Your task to perform on an android device: Clear the cart on walmart. Add logitech g pro to the cart on walmart, then select checkout. Image 0: 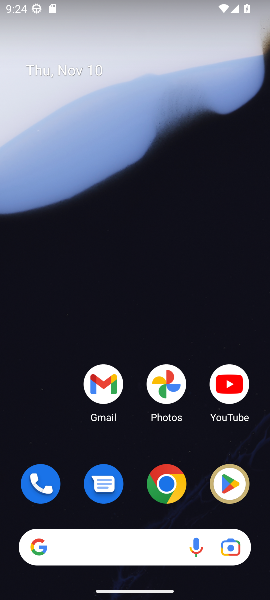
Step 0: click (168, 483)
Your task to perform on an android device: Clear the cart on walmart. Add logitech g pro to the cart on walmart, then select checkout. Image 1: 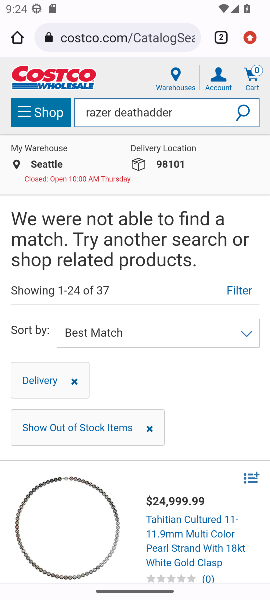
Step 1: click (105, 39)
Your task to perform on an android device: Clear the cart on walmart. Add logitech g pro to the cart on walmart, then select checkout. Image 2: 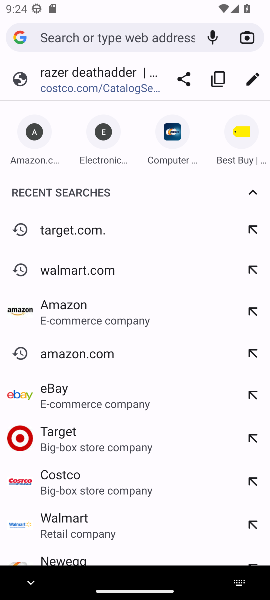
Step 2: click (76, 269)
Your task to perform on an android device: Clear the cart on walmart. Add logitech g pro to the cart on walmart, then select checkout. Image 3: 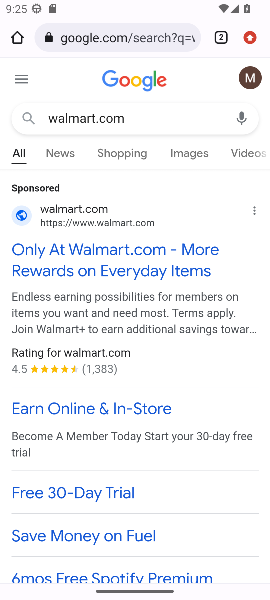
Step 3: drag from (69, 381) to (87, 161)
Your task to perform on an android device: Clear the cart on walmart. Add logitech g pro to the cart on walmart, then select checkout. Image 4: 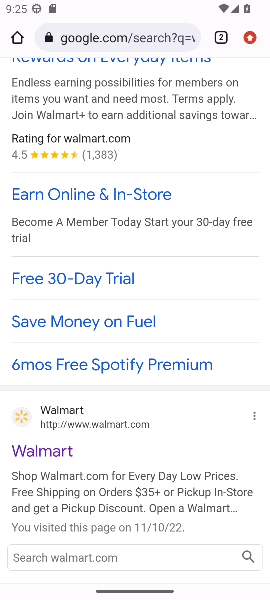
Step 4: click (49, 446)
Your task to perform on an android device: Clear the cart on walmart. Add logitech g pro to the cart on walmart, then select checkout. Image 5: 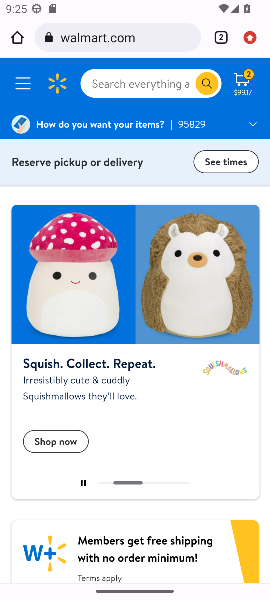
Step 5: click (243, 90)
Your task to perform on an android device: Clear the cart on walmart. Add logitech g pro to the cart on walmart, then select checkout. Image 6: 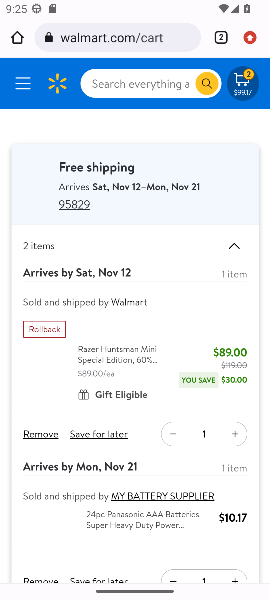
Step 6: click (36, 436)
Your task to perform on an android device: Clear the cart on walmart. Add logitech g pro to the cart on walmart, then select checkout. Image 7: 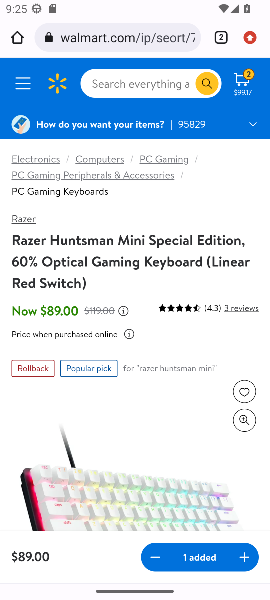
Step 7: drag from (86, 434) to (109, 227)
Your task to perform on an android device: Clear the cart on walmart. Add logitech g pro to the cart on walmart, then select checkout. Image 8: 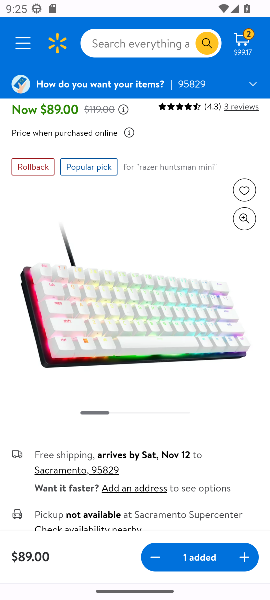
Step 8: drag from (107, 300) to (98, 470)
Your task to perform on an android device: Clear the cart on walmart. Add logitech g pro to the cart on walmart, then select checkout. Image 9: 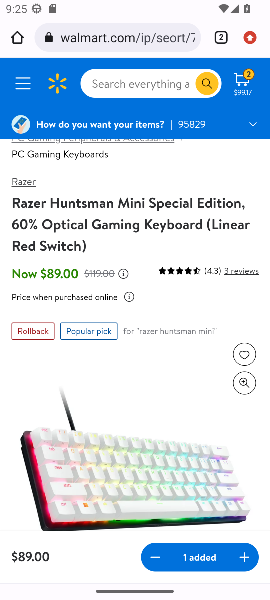
Step 9: click (241, 86)
Your task to perform on an android device: Clear the cart on walmart. Add logitech g pro to the cart on walmart, then select checkout. Image 10: 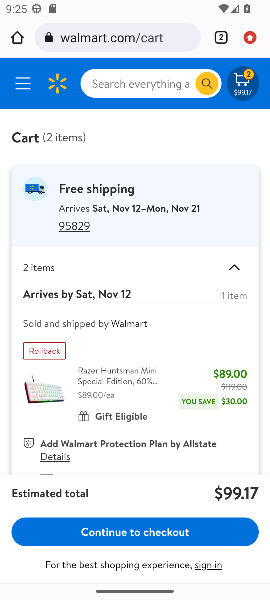
Step 10: drag from (84, 436) to (104, 217)
Your task to perform on an android device: Clear the cart on walmart. Add logitech g pro to the cart on walmart, then select checkout. Image 11: 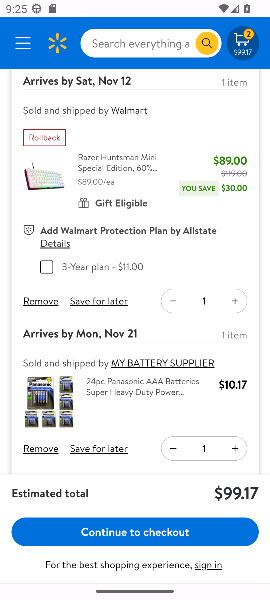
Step 11: click (34, 303)
Your task to perform on an android device: Clear the cart on walmart. Add logitech g pro to the cart on walmart, then select checkout. Image 12: 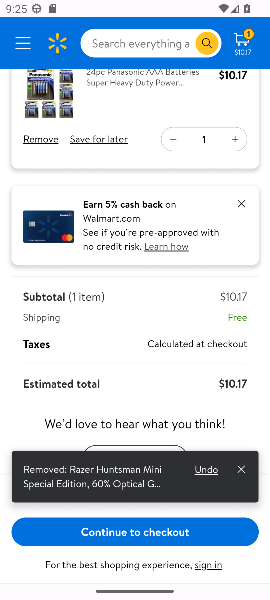
Step 12: click (38, 138)
Your task to perform on an android device: Clear the cart on walmart. Add logitech g pro to the cart on walmart, then select checkout. Image 13: 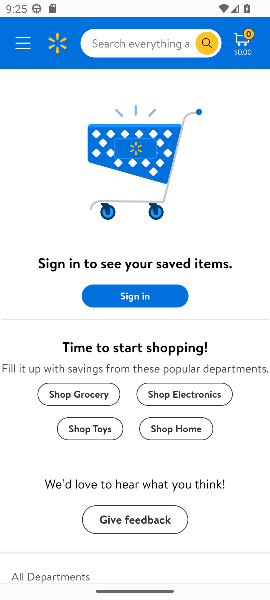
Step 13: click (122, 48)
Your task to perform on an android device: Clear the cart on walmart. Add logitech g pro to the cart on walmart, then select checkout. Image 14: 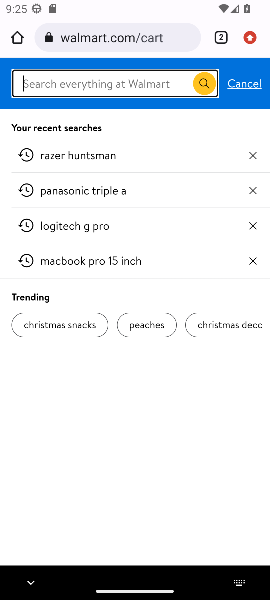
Step 14: type "logitech g pro"
Your task to perform on an android device: Clear the cart on walmart. Add logitech g pro to the cart on walmart, then select checkout. Image 15: 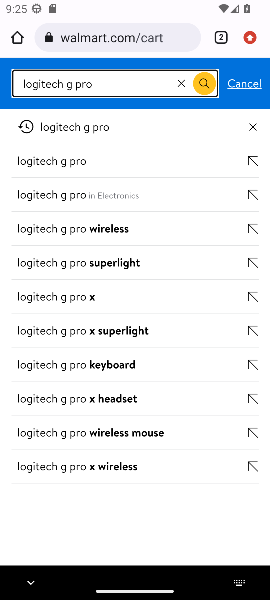
Step 15: click (93, 126)
Your task to perform on an android device: Clear the cart on walmart. Add logitech g pro to the cart on walmart, then select checkout. Image 16: 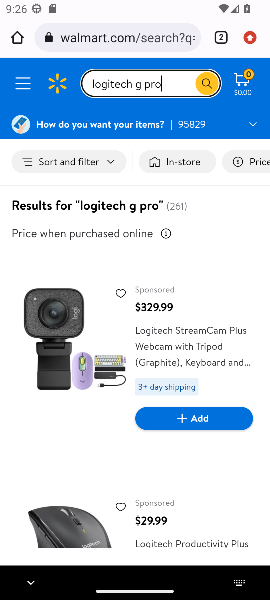
Step 16: drag from (82, 353) to (79, 162)
Your task to perform on an android device: Clear the cart on walmart. Add logitech g pro to the cart on walmart, then select checkout. Image 17: 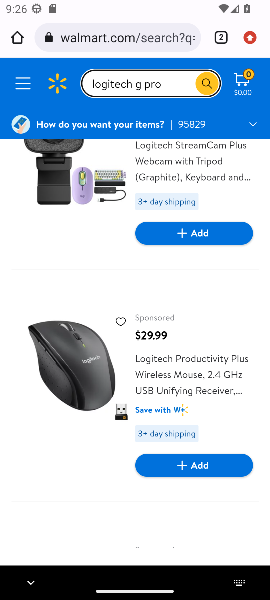
Step 17: drag from (69, 372) to (100, 142)
Your task to perform on an android device: Clear the cart on walmart. Add logitech g pro to the cart on walmart, then select checkout. Image 18: 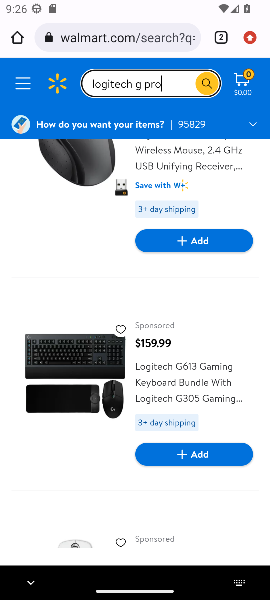
Step 18: drag from (102, 367) to (103, 188)
Your task to perform on an android device: Clear the cart on walmart. Add logitech g pro to the cart on walmart, then select checkout. Image 19: 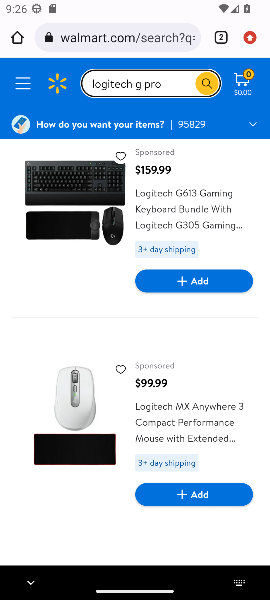
Step 19: drag from (104, 439) to (99, 205)
Your task to perform on an android device: Clear the cart on walmart. Add logitech g pro to the cart on walmart, then select checkout. Image 20: 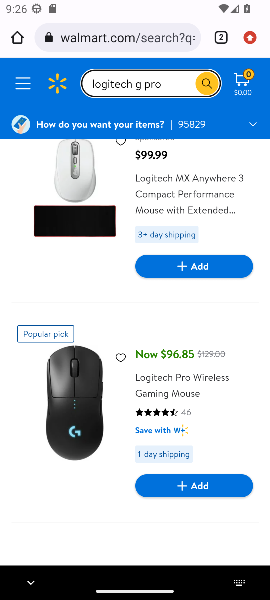
Step 20: drag from (85, 414) to (89, 290)
Your task to perform on an android device: Clear the cart on walmart. Add logitech g pro to the cart on walmart, then select checkout. Image 21: 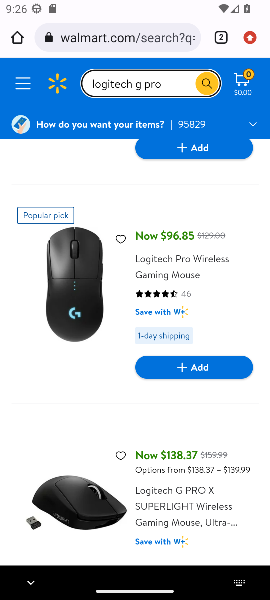
Step 21: drag from (120, 480) to (131, 337)
Your task to perform on an android device: Clear the cart on walmart. Add logitech g pro to the cart on walmart, then select checkout. Image 22: 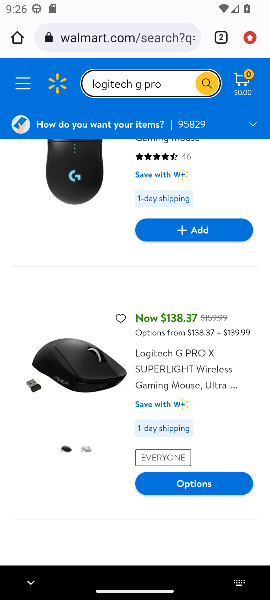
Step 22: click (93, 375)
Your task to perform on an android device: Clear the cart on walmart. Add logitech g pro to the cart on walmart, then select checkout. Image 23: 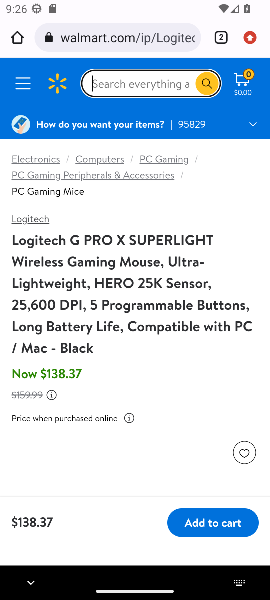
Step 23: click (206, 524)
Your task to perform on an android device: Clear the cart on walmart. Add logitech g pro to the cart on walmart, then select checkout. Image 24: 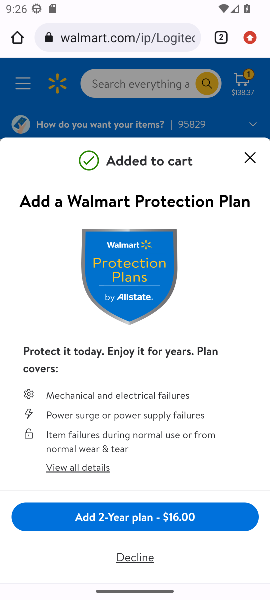
Step 24: click (251, 154)
Your task to perform on an android device: Clear the cart on walmart. Add logitech g pro to the cart on walmart, then select checkout. Image 25: 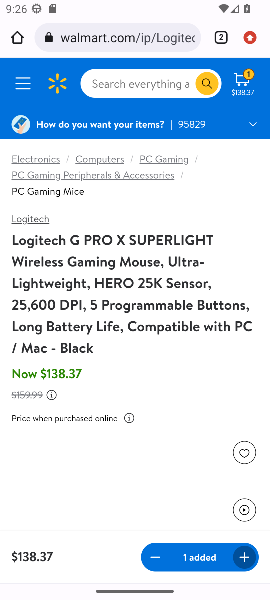
Step 25: click (243, 73)
Your task to perform on an android device: Clear the cart on walmart. Add logitech g pro to the cart on walmart, then select checkout. Image 26: 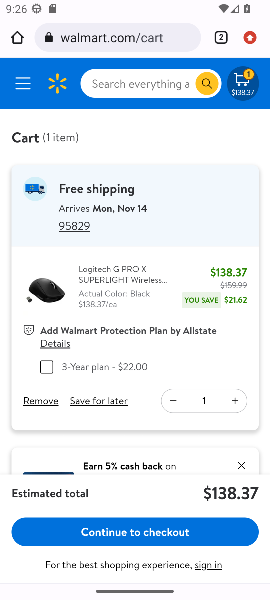
Step 26: click (120, 528)
Your task to perform on an android device: Clear the cart on walmart. Add logitech g pro to the cart on walmart, then select checkout. Image 27: 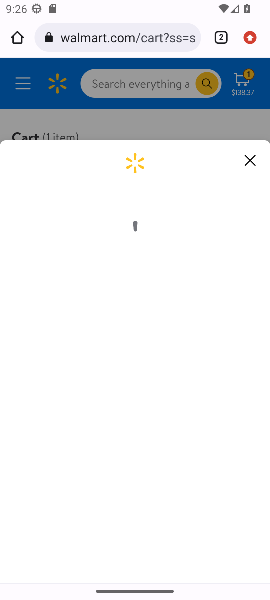
Step 27: task complete